Your task to perform on an android device: What's the weather today? Image 0: 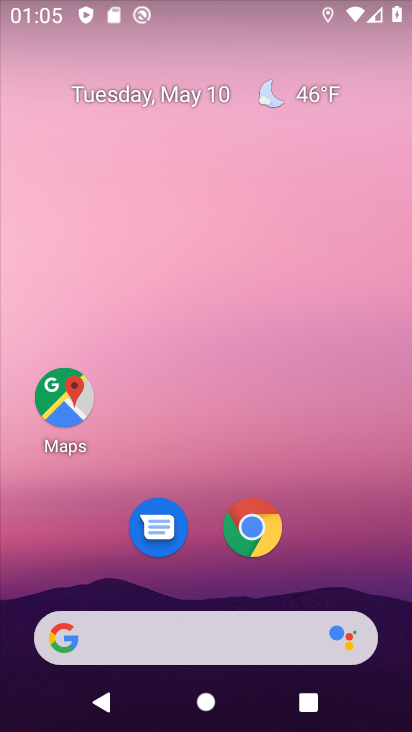
Step 0: click (250, 543)
Your task to perform on an android device: What's the weather today? Image 1: 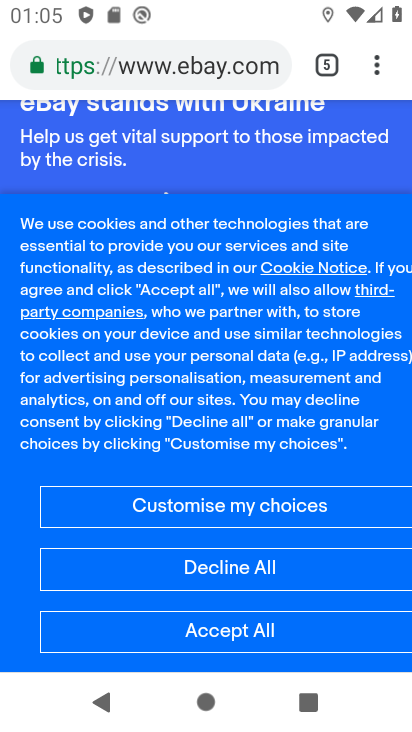
Step 1: click (332, 62)
Your task to perform on an android device: What's the weather today? Image 2: 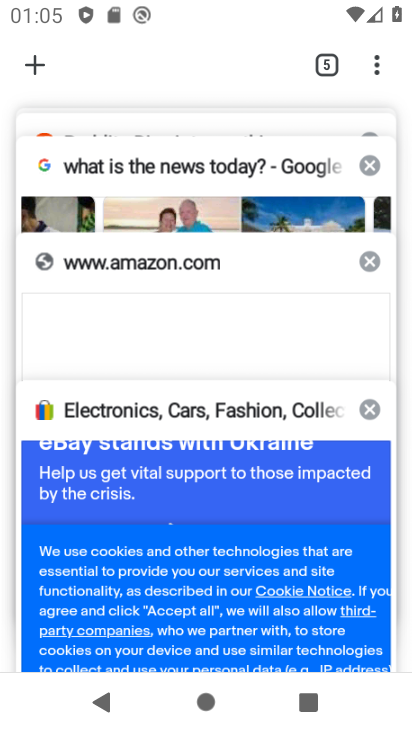
Step 2: drag from (199, 160) to (164, 392)
Your task to perform on an android device: What's the weather today? Image 3: 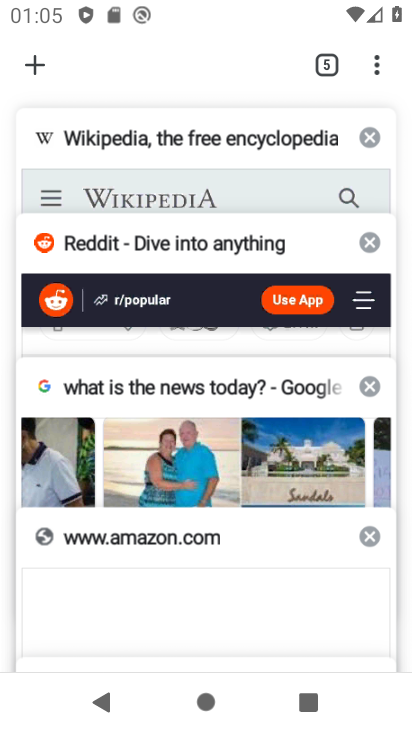
Step 3: click (35, 75)
Your task to perform on an android device: What's the weather today? Image 4: 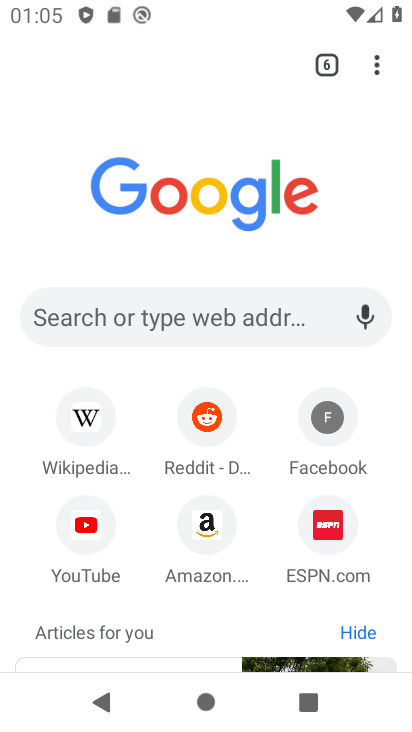
Step 4: click (126, 321)
Your task to perform on an android device: What's the weather today? Image 5: 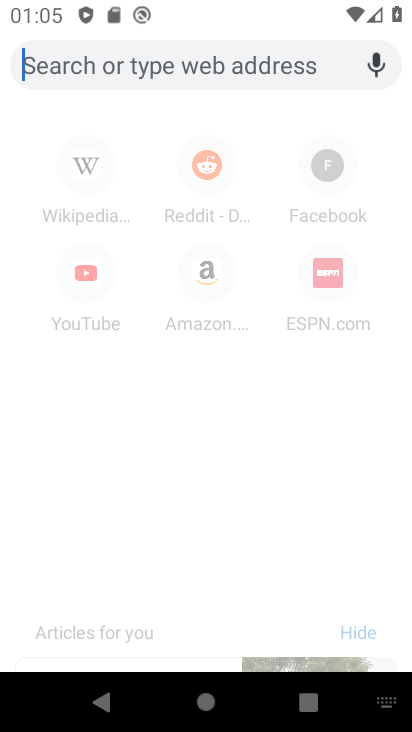
Step 5: type "whats the weather today"
Your task to perform on an android device: What's the weather today? Image 6: 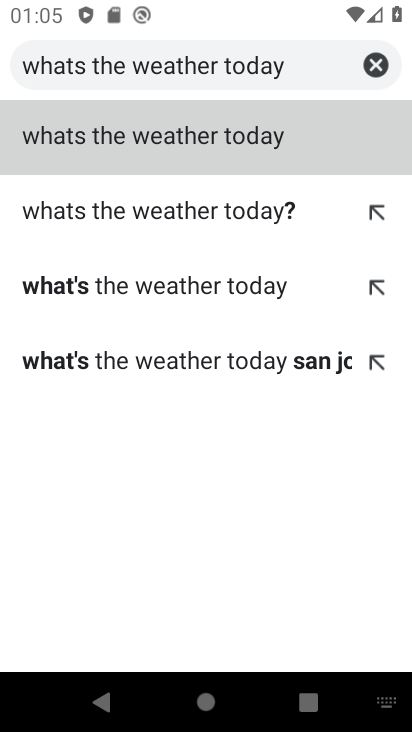
Step 6: click (252, 201)
Your task to perform on an android device: What's the weather today? Image 7: 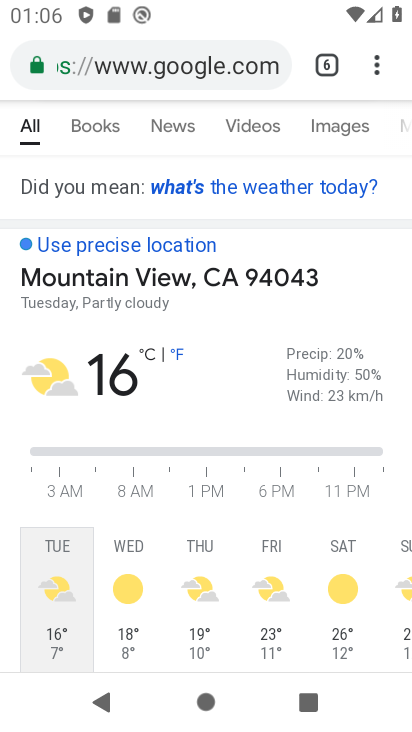
Step 7: task complete